Your task to perform on an android device: Open battery settings Image 0: 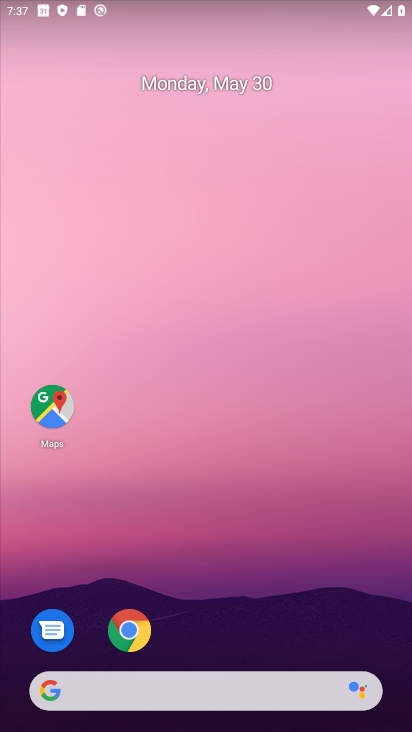
Step 0: drag from (217, 684) to (363, 89)
Your task to perform on an android device: Open battery settings Image 1: 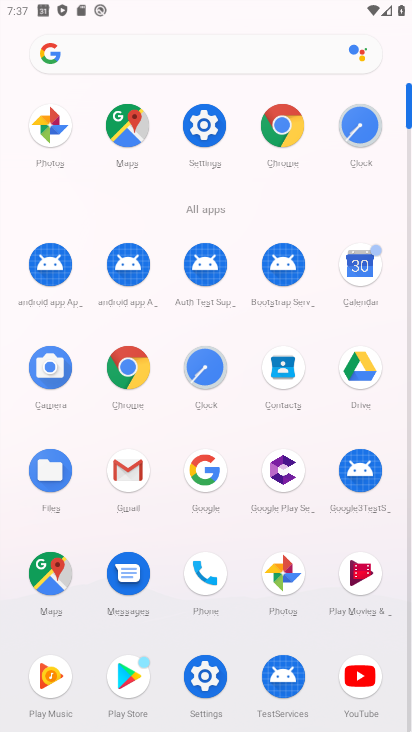
Step 1: click (202, 119)
Your task to perform on an android device: Open battery settings Image 2: 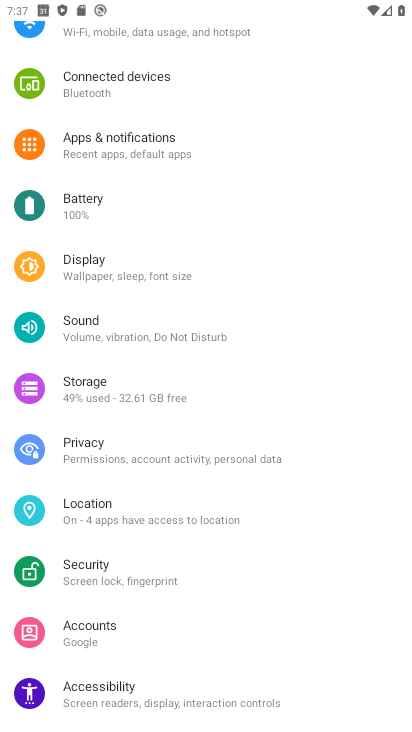
Step 2: drag from (235, 127) to (218, 374)
Your task to perform on an android device: Open battery settings Image 3: 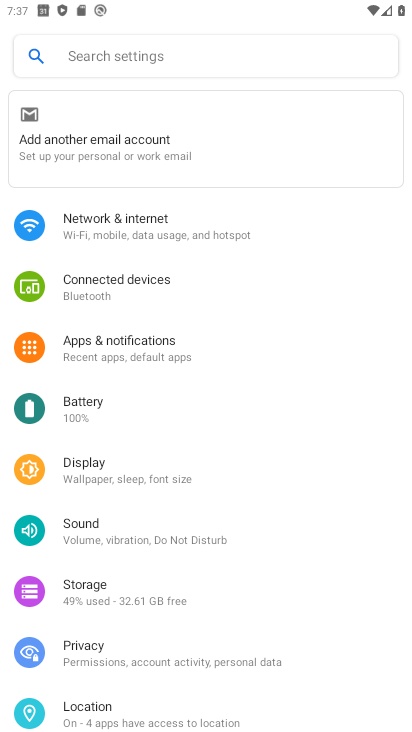
Step 3: click (96, 407)
Your task to perform on an android device: Open battery settings Image 4: 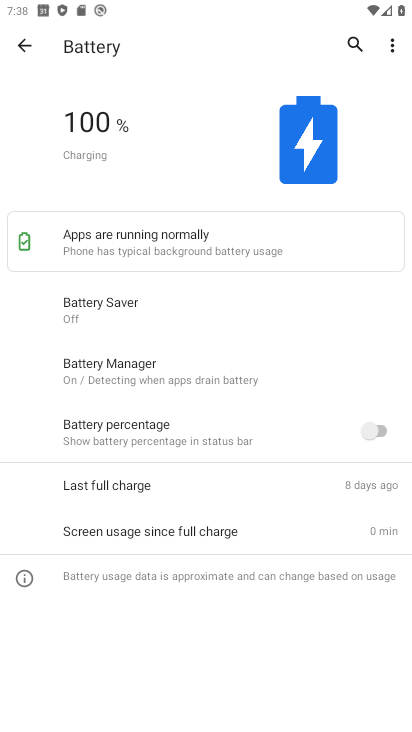
Step 4: task complete